Your task to perform on an android device: create a new album in the google photos Image 0: 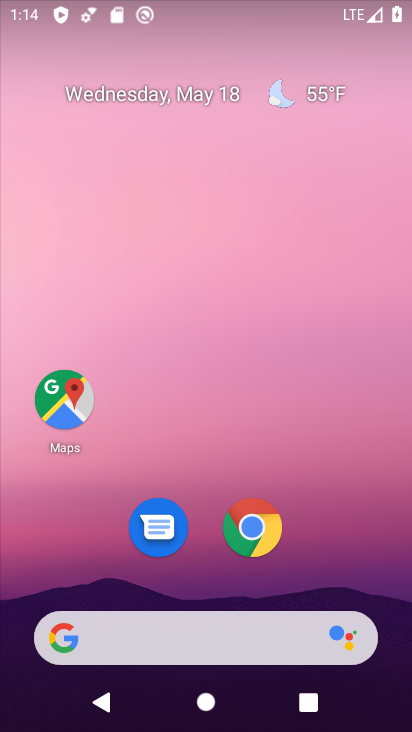
Step 0: drag from (307, 572) to (175, 41)
Your task to perform on an android device: create a new album in the google photos Image 1: 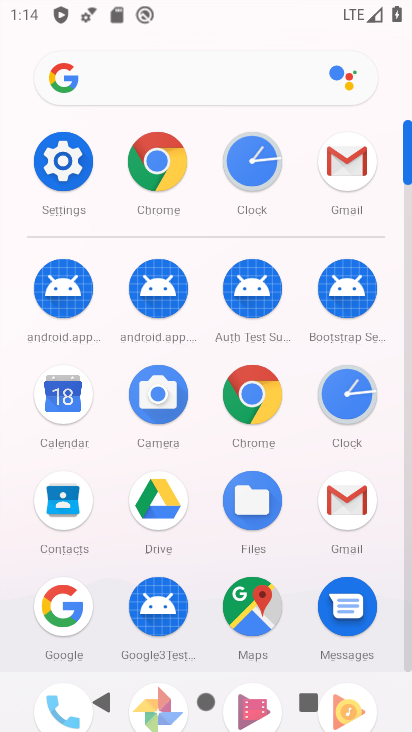
Step 1: drag from (231, 575) to (197, 188)
Your task to perform on an android device: create a new album in the google photos Image 2: 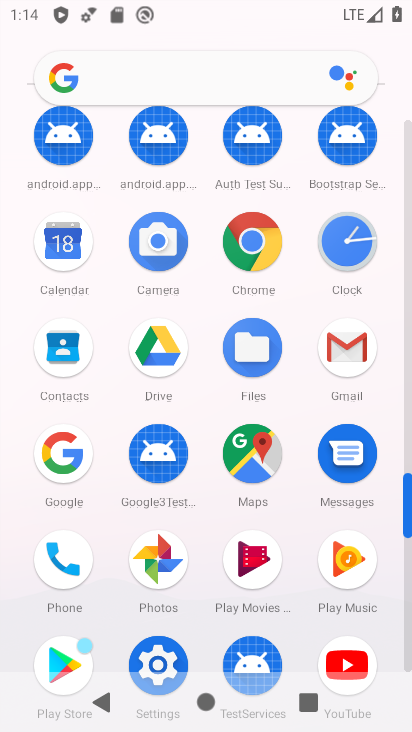
Step 2: click (167, 550)
Your task to perform on an android device: create a new album in the google photos Image 3: 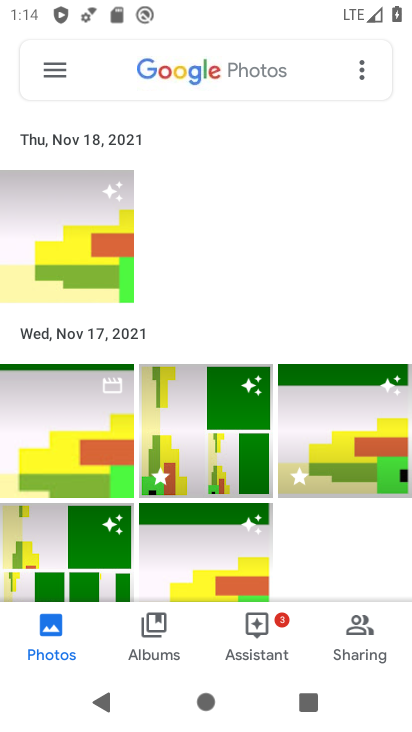
Step 3: click (164, 639)
Your task to perform on an android device: create a new album in the google photos Image 4: 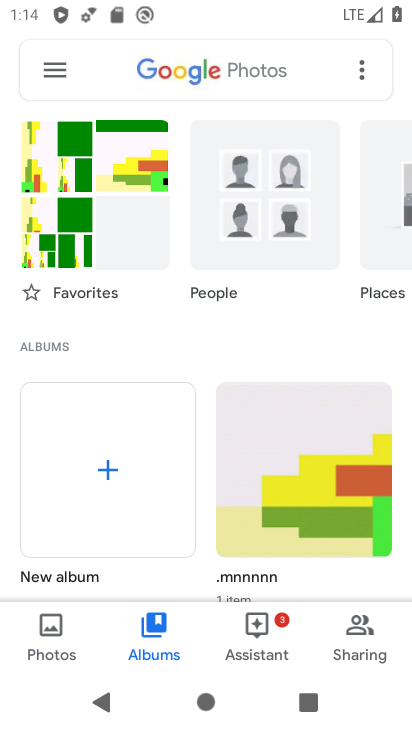
Step 4: click (106, 464)
Your task to perform on an android device: create a new album in the google photos Image 5: 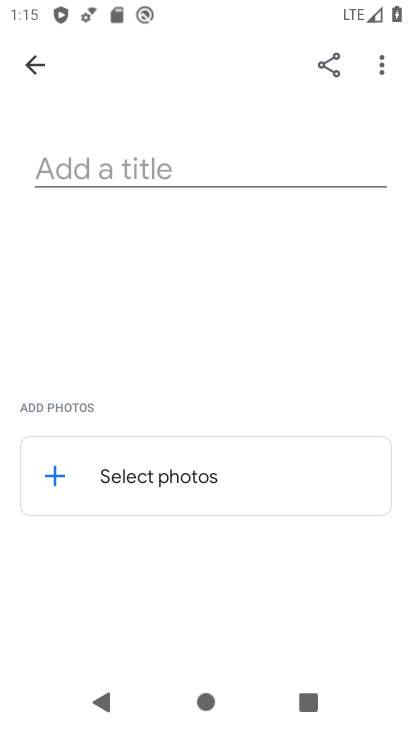
Step 5: click (207, 152)
Your task to perform on an android device: create a new album in the google photos Image 6: 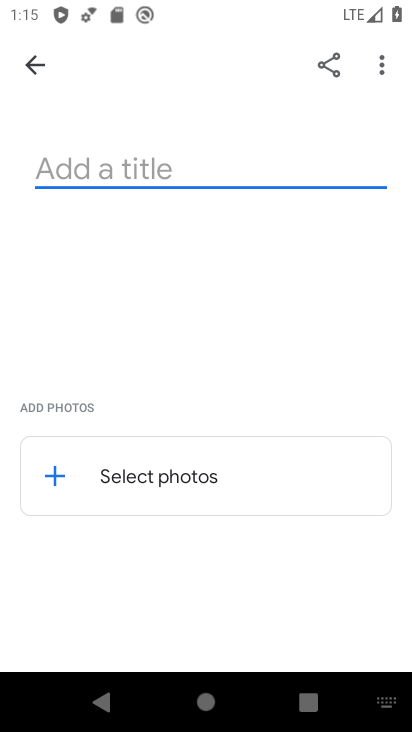
Step 6: type "dfgsdfg"
Your task to perform on an android device: create a new album in the google photos Image 7: 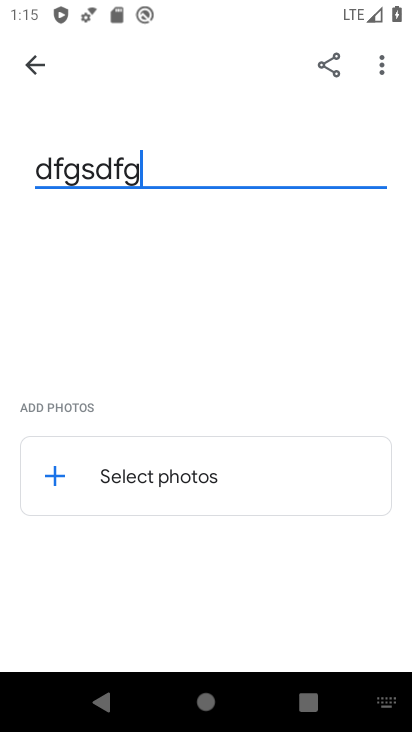
Step 7: type ""
Your task to perform on an android device: create a new album in the google photos Image 8: 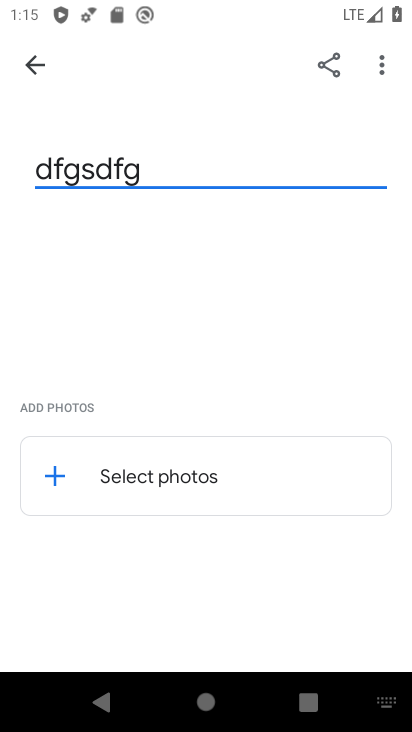
Step 8: click (179, 483)
Your task to perform on an android device: create a new album in the google photos Image 9: 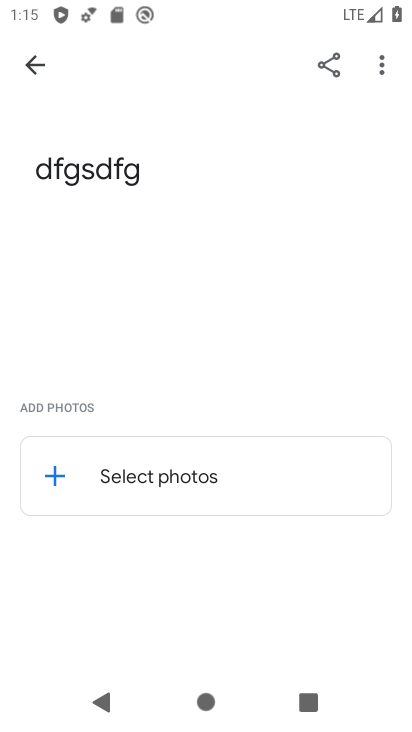
Step 9: click (36, 483)
Your task to perform on an android device: create a new album in the google photos Image 10: 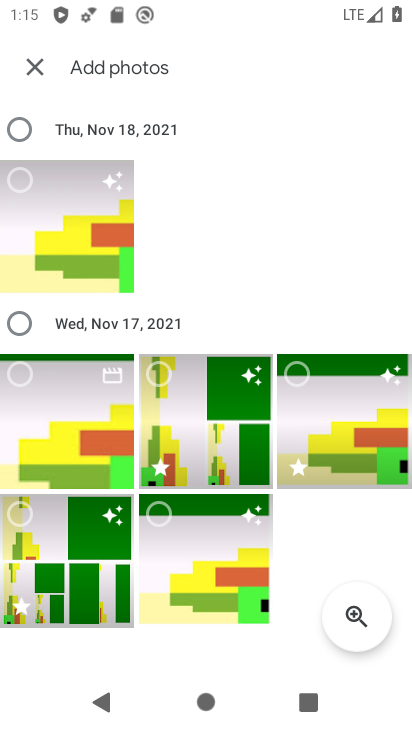
Step 10: click (47, 230)
Your task to perform on an android device: create a new album in the google photos Image 11: 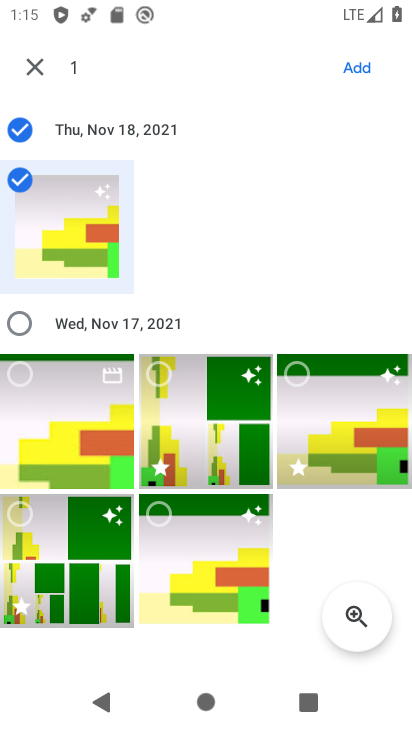
Step 11: click (185, 568)
Your task to perform on an android device: create a new album in the google photos Image 12: 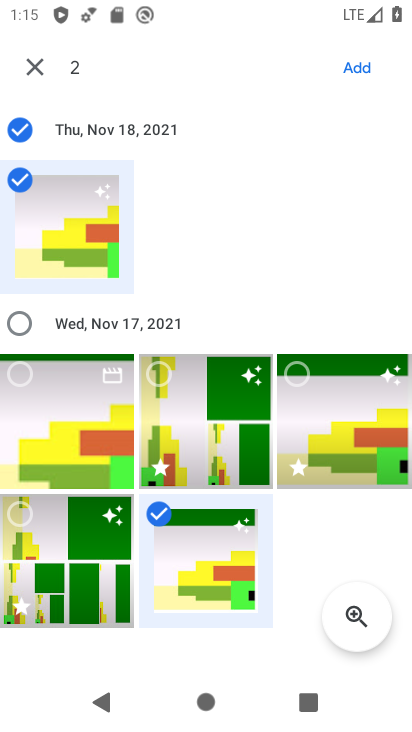
Step 12: click (341, 66)
Your task to perform on an android device: create a new album in the google photos Image 13: 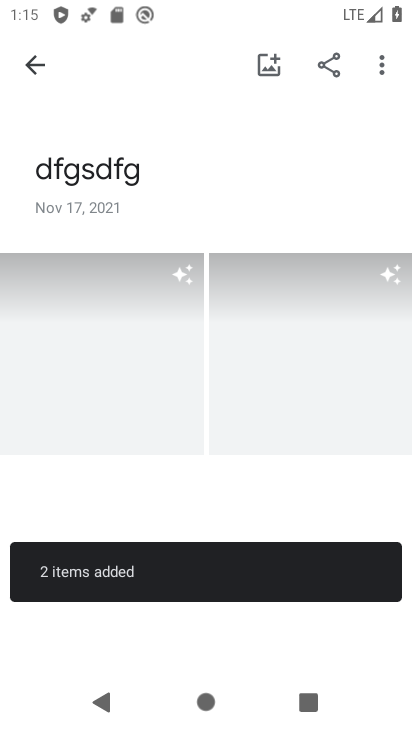
Step 13: task complete